Your task to perform on an android device: Go to calendar. Show me events next week Image 0: 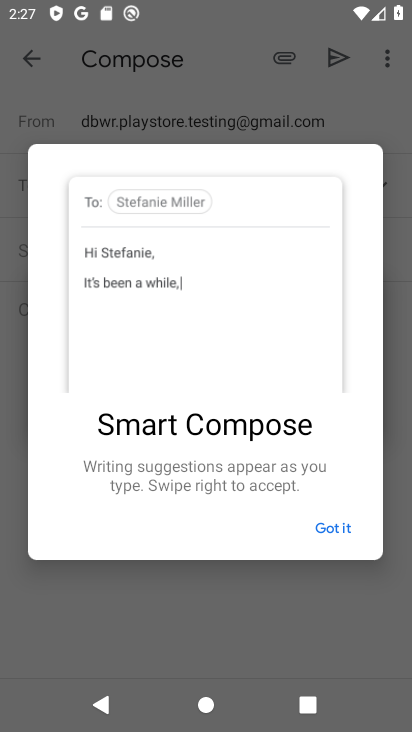
Step 0: press home button
Your task to perform on an android device: Go to calendar. Show me events next week Image 1: 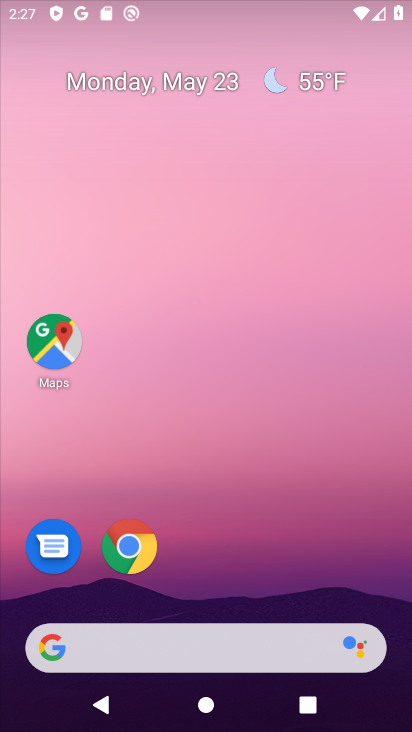
Step 1: drag from (367, 557) to (302, 206)
Your task to perform on an android device: Go to calendar. Show me events next week Image 2: 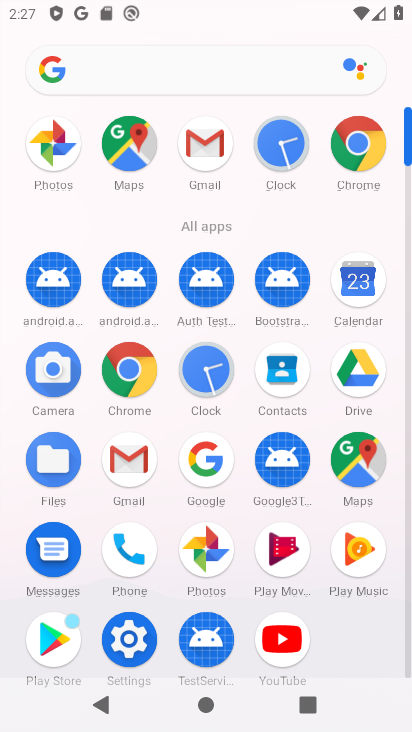
Step 2: click (346, 294)
Your task to perform on an android device: Go to calendar. Show me events next week Image 3: 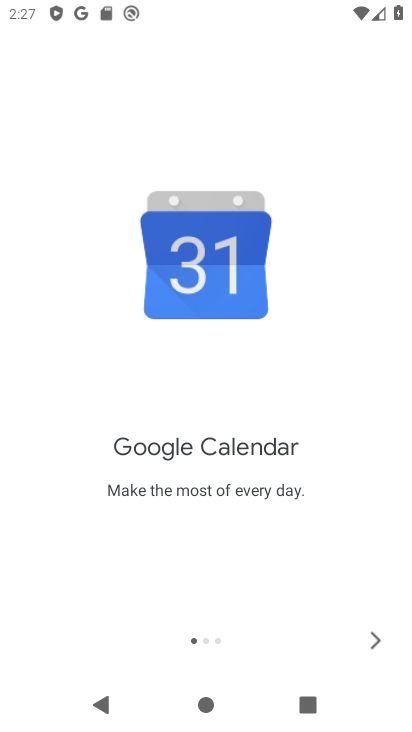
Step 3: click (374, 654)
Your task to perform on an android device: Go to calendar. Show me events next week Image 4: 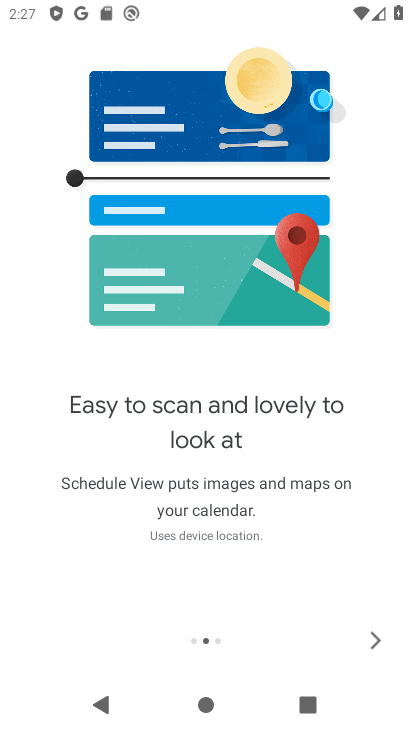
Step 4: click (374, 646)
Your task to perform on an android device: Go to calendar. Show me events next week Image 5: 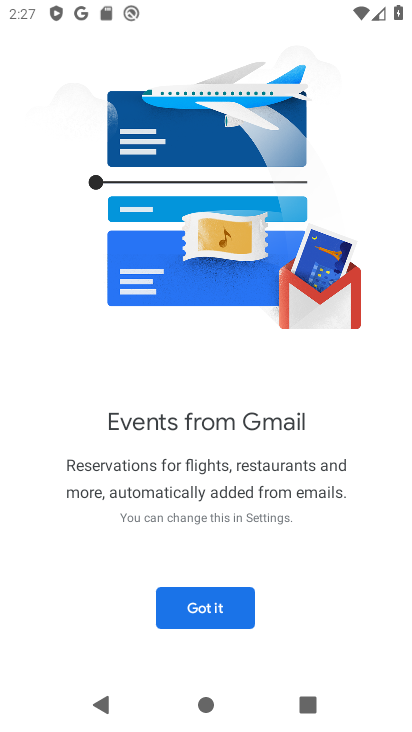
Step 5: click (235, 609)
Your task to perform on an android device: Go to calendar. Show me events next week Image 6: 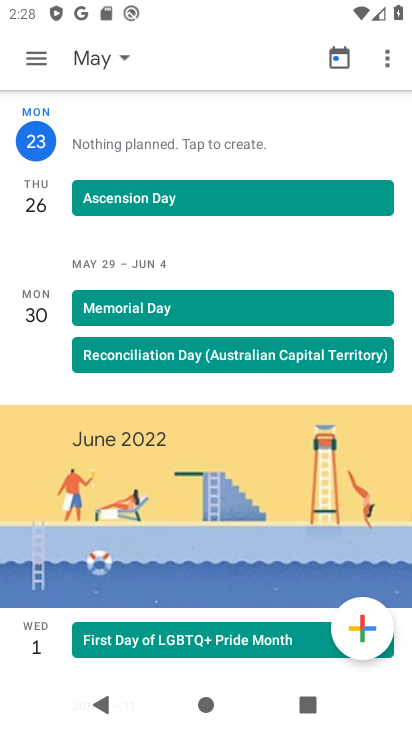
Step 6: click (97, 63)
Your task to perform on an android device: Go to calendar. Show me events next week Image 7: 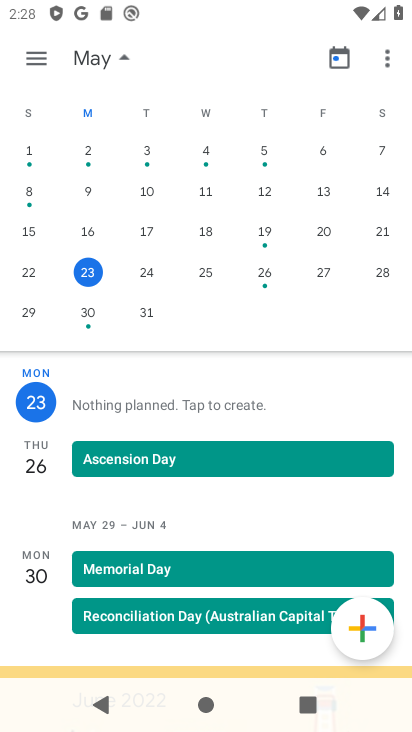
Step 7: task complete